Your task to perform on an android device: open wifi settings Image 0: 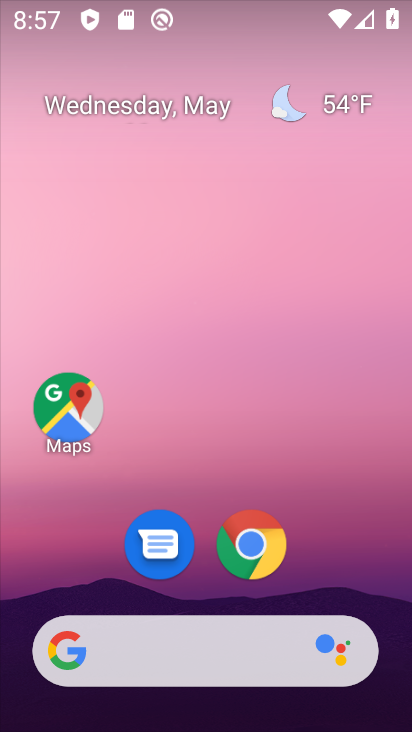
Step 0: drag from (207, 6) to (280, 523)
Your task to perform on an android device: open wifi settings Image 1: 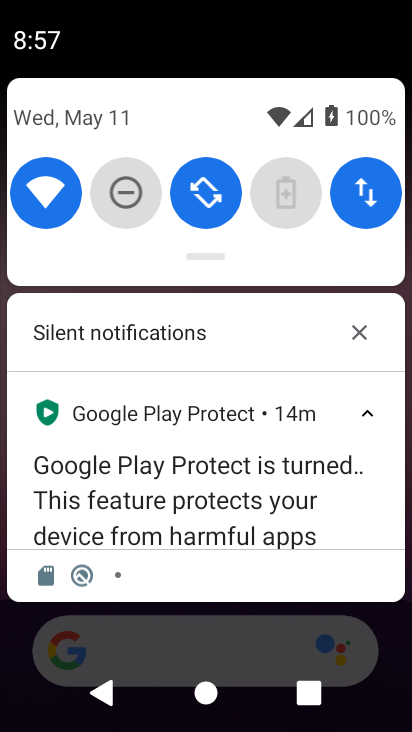
Step 1: click (62, 212)
Your task to perform on an android device: open wifi settings Image 2: 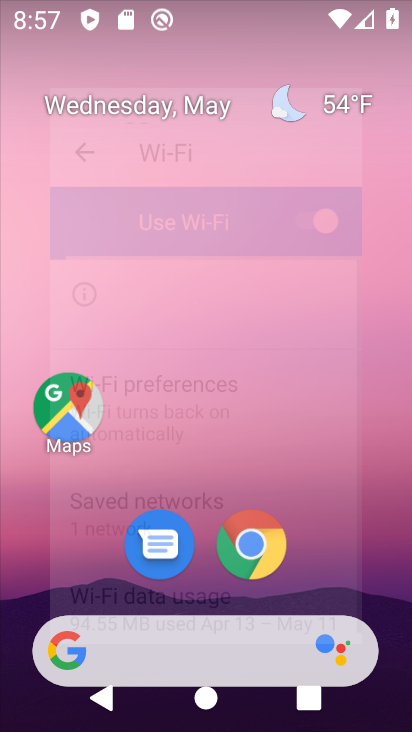
Step 2: click (62, 212)
Your task to perform on an android device: open wifi settings Image 3: 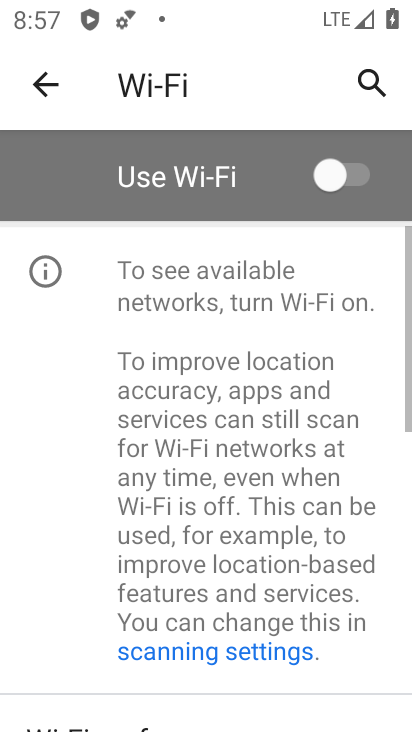
Step 3: task complete